Your task to perform on an android device: change notification settings in the gmail app Image 0: 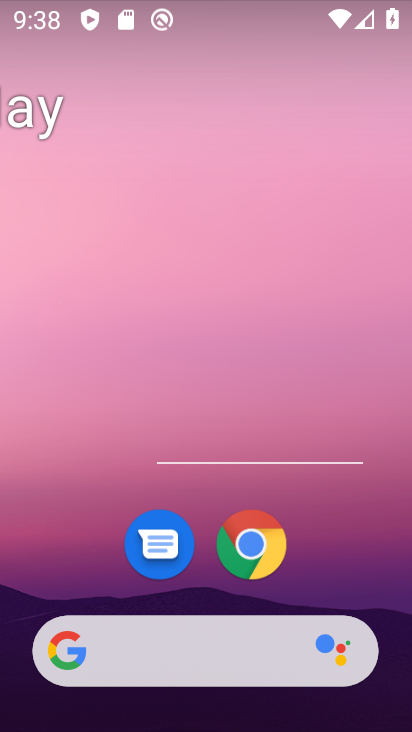
Step 0: drag from (370, 577) to (324, 144)
Your task to perform on an android device: change notification settings in the gmail app Image 1: 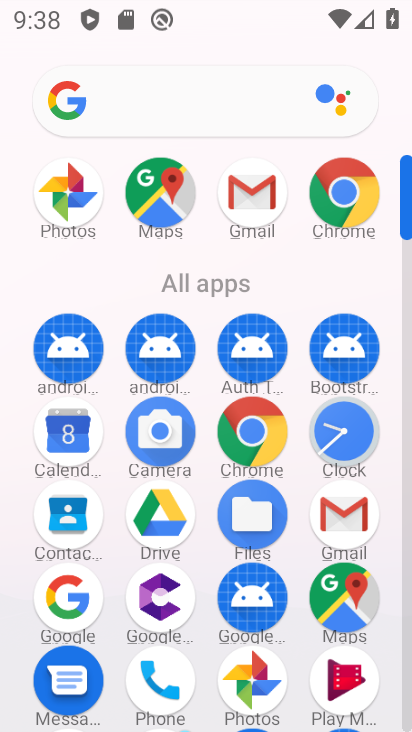
Step 1: click (338, 535)
Your task to perform on an android device: change notification settings in the gmail app Image 2: 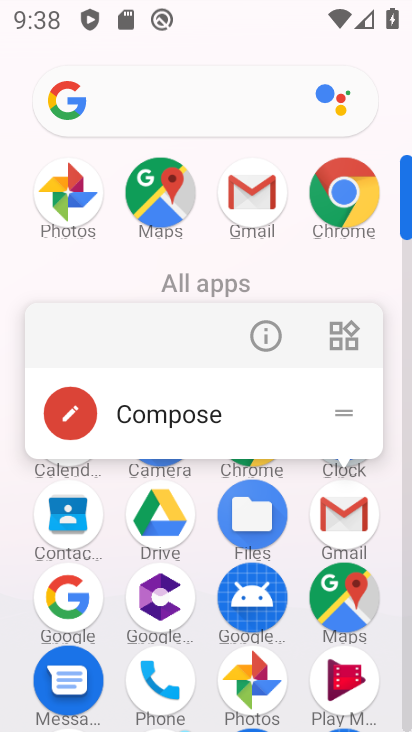
Step 2: click (284, 331)
Your task to perform on an android device: change notification settings in the gmail app Image 3: 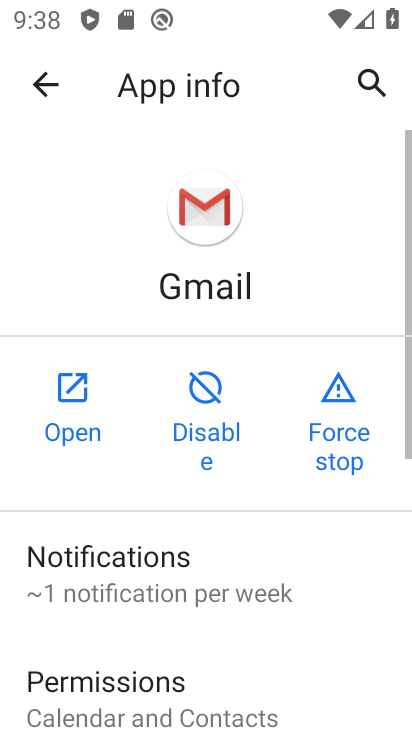
Step 3: click (154, 581)
Your task to perform on an android device: change notification settings in the gmail app Image 4: 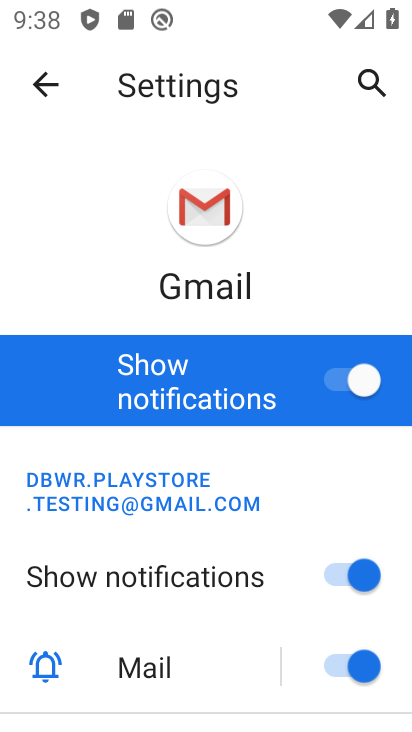
Step 4: drag from (224, 642) to (260, 438)
Your task to perform on an android device: change notification settings in the gmail app Image 5: 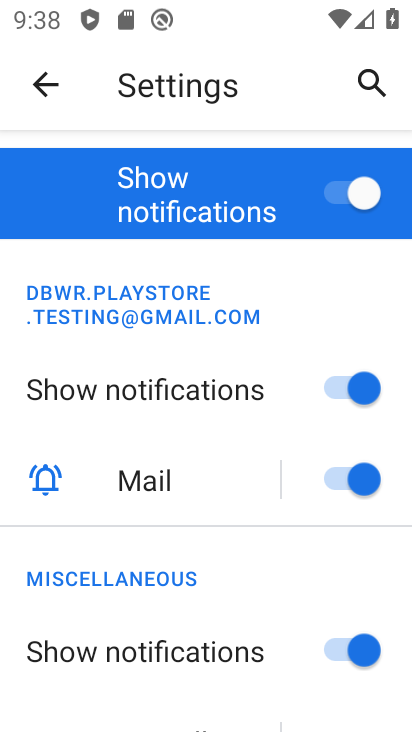
Step 5: click (352, 195)
Your task to perform on an android device: change notification settings in the gmail app Image 6: 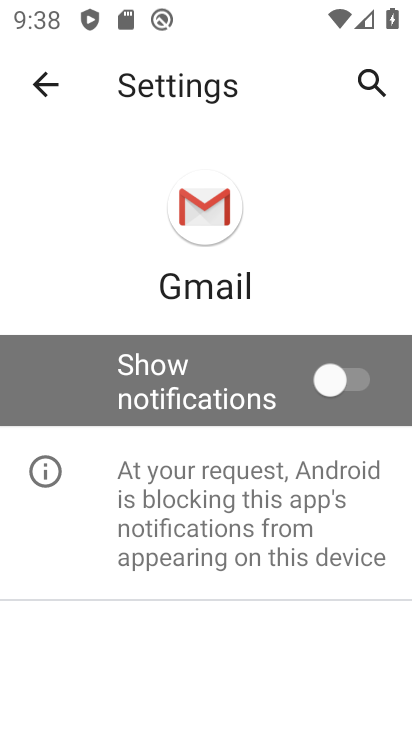
Step 6: task complete